Your task to perform on an android device: Go to privacy settings Image 0: 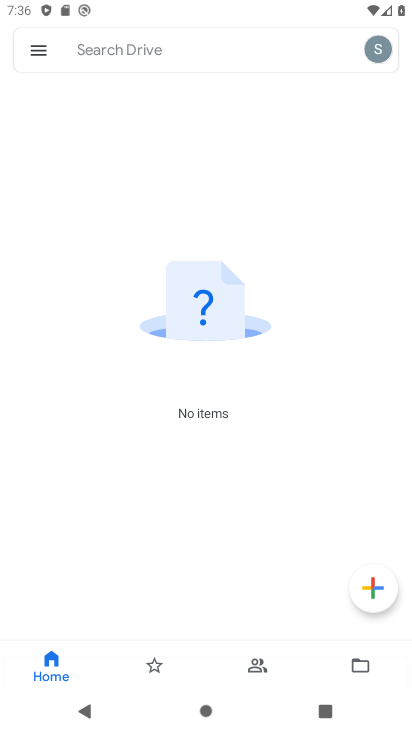
Step 0: press home button
Your task to perform on an android device: Go to privacy settings Image 1: 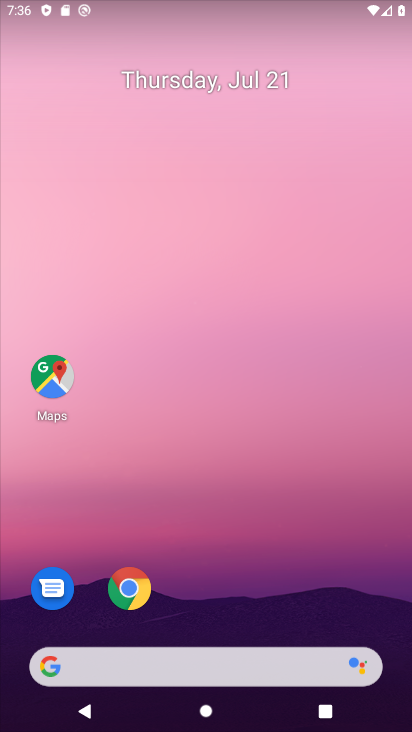
Step 1: drag from (271, 613) to (334, 132)
Your task to perform on an android device: Go to privacy settings Image 2: 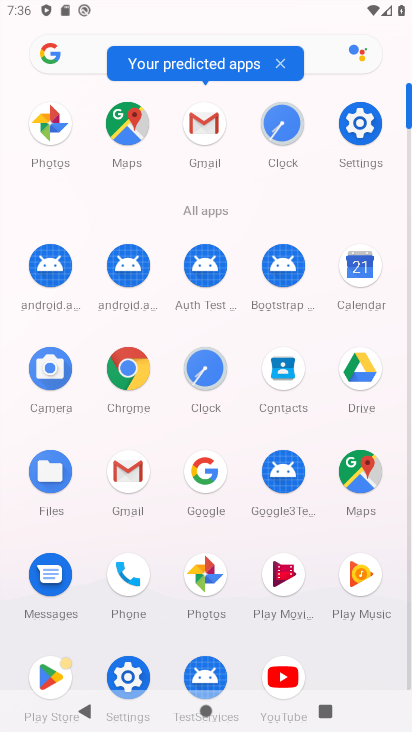
Step 2: click (363, 133)
Your task to perform on an android device: Go to privacy settings Image 3: 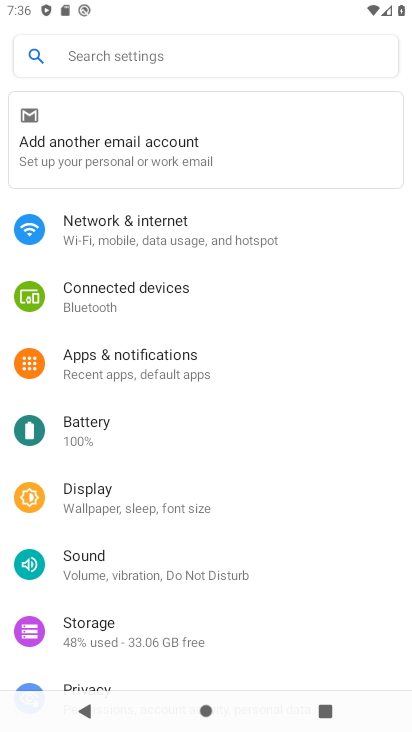
Step 3: drag from (98, 626) to (131, 154)
Your task to perform on an android device: Go to privacy settings Image 4: 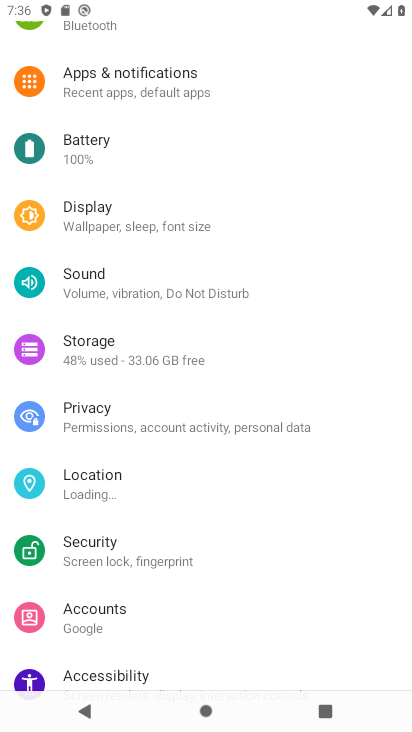
Step 4: click (178, 438)
Your task to perform on an android device: Go to privacy settings Image 5: 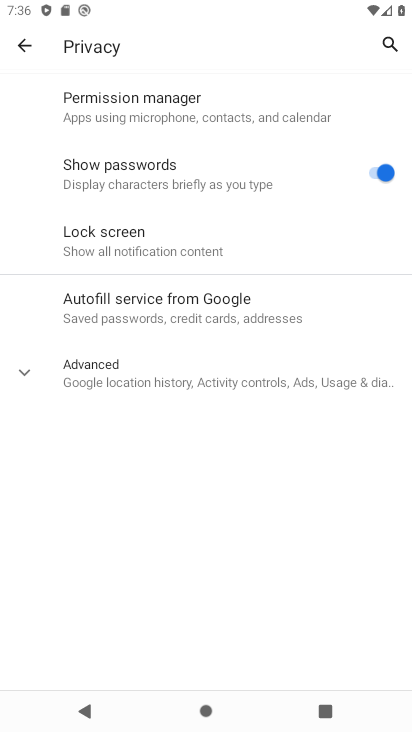
Step 5: task complete